Your task to perform on an android device: find snoozed emails in the gmail app Image 0: 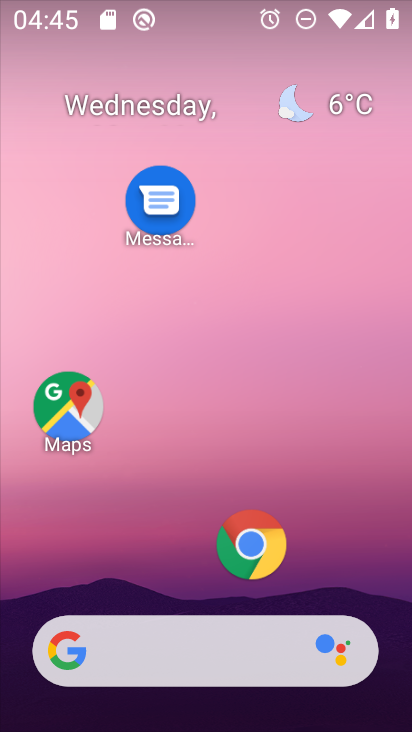
Step 0: drag from (357, 530) to (373, 310)
Your task to perform on an android device: find snoozed emails in the gmail app Image 1: 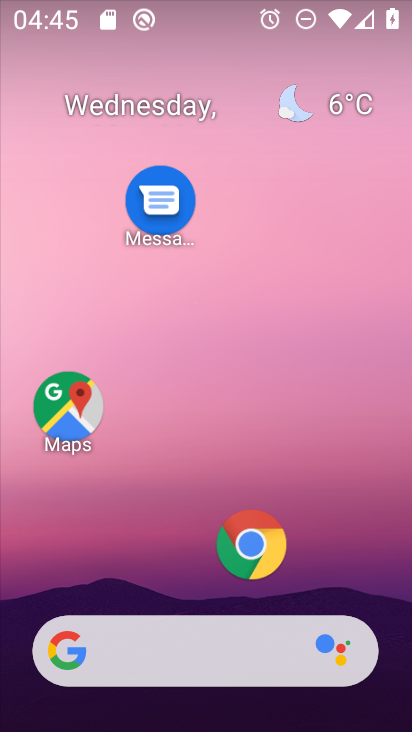
Step 1: drag from (356, 551) to (306, 7)
Your task to perform on an android device: find snoozed emails in the gmail app Image 2: 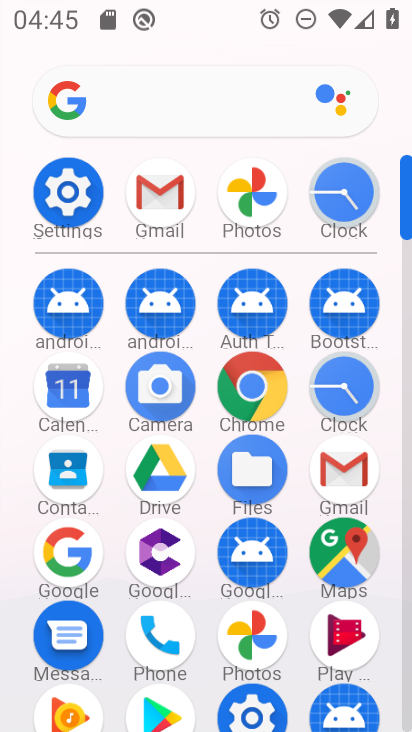
Step 2: click (168, 205)
Your task to perform on an android device: find snoozed emails in the gmail app Image 3: 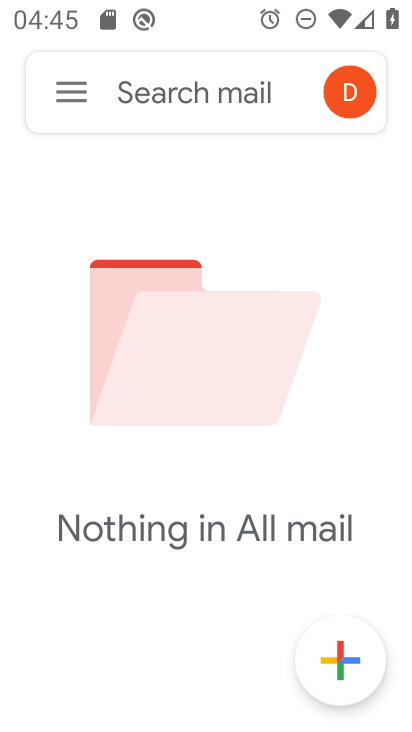
Step 3: click (84, 99)
Your task to perform on an android device: find snoozed emails in the gmail app Image 4: 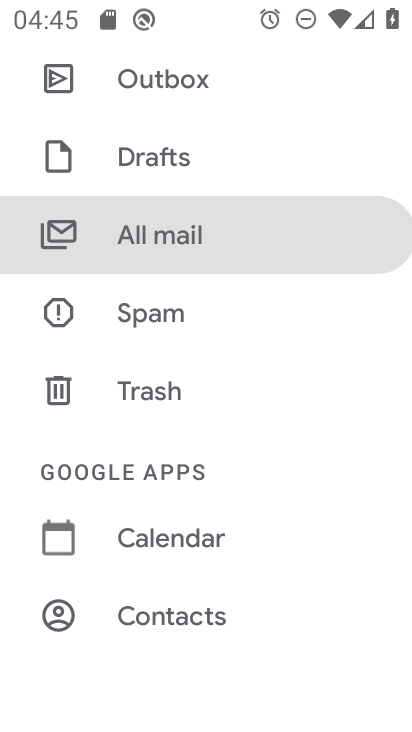
Step 4: drag from (196, 249) to (227, 434)
Your task to perform on an android device: find snoozed emails in the gmail app Image 5: 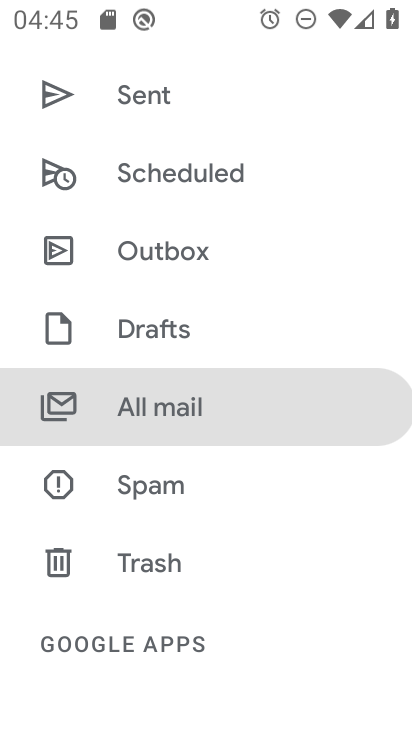
Step 5: drag from (253, 116) to (275, 431)
Your task to perform on an android device: find snoozed emails in the gmail app Image 6: 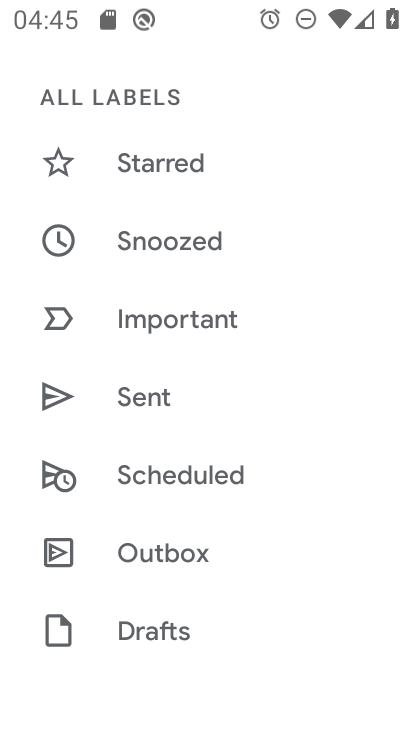
Step 6: click (256, 240)
Your task to perform on an android device: find snoozed emails in the gmail app Image 7: 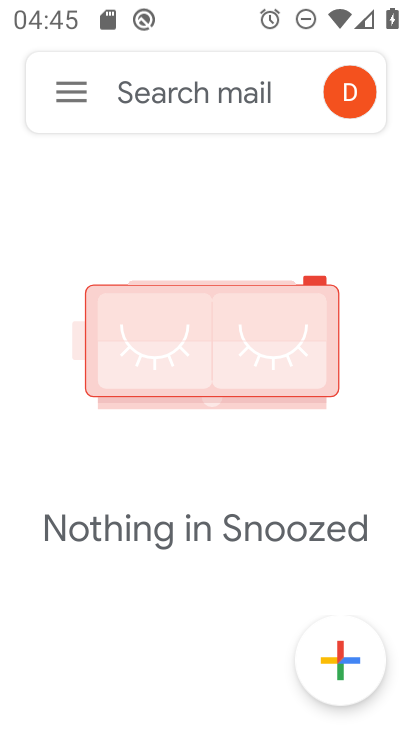
Step 7: task complete